Your task to perform on an android device: turn on improve location accuracy Image 0: 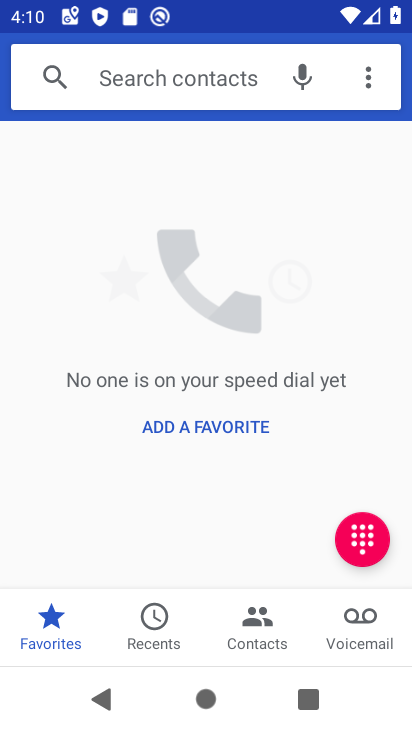
Step 0: press home button
Your task to perform on an android device: turn on improve location accuracy Image 1: 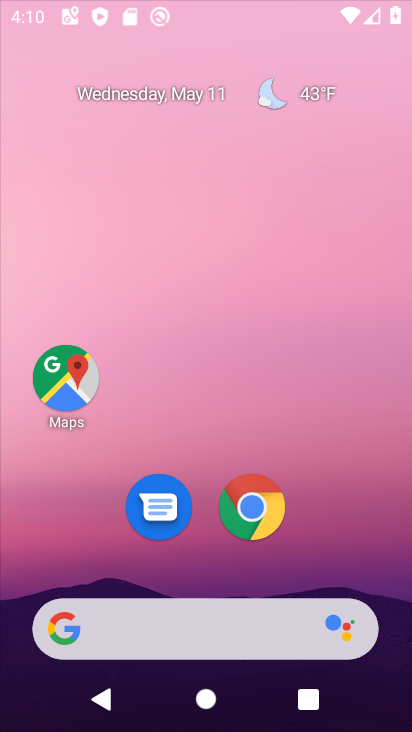
Step 1: drag from (221, 570) to (257, 40)
Your task to perform on an android device: turn on improve location accuracy Image 2: 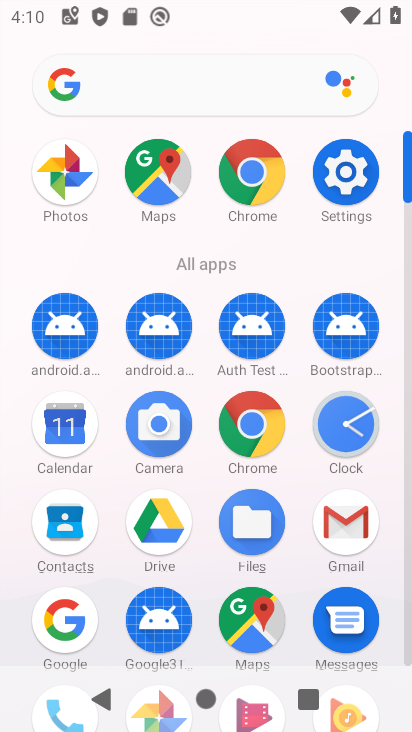
Step 2: click (354, 195)
Your task to perform on an android device: turn on improve location accuracy Image 3: 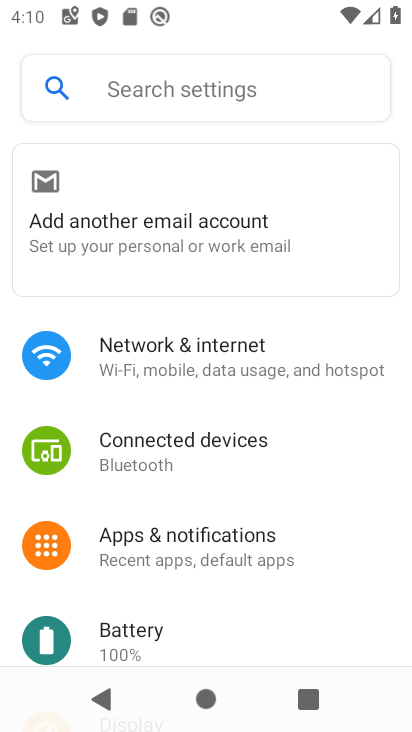
Step 3: drag from (190, 554) to (213, 66)
Your task to perform on an android device: turn on improve location accuracy Image 4: 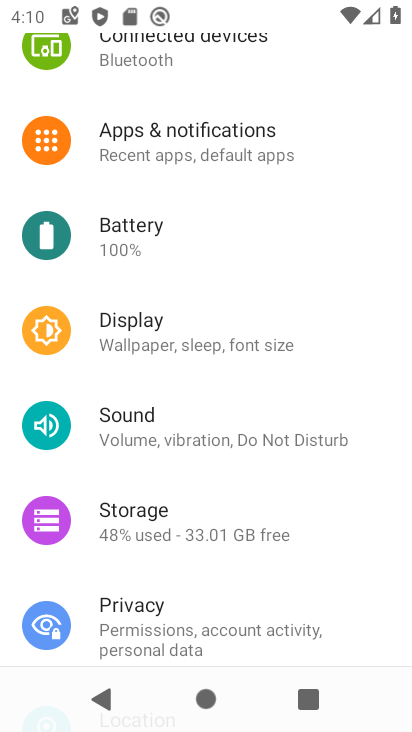
Step 4: drag from (170, 564) to (239, 75)
Your task to perform on an android device: turn on improve location accuracy Image 5: 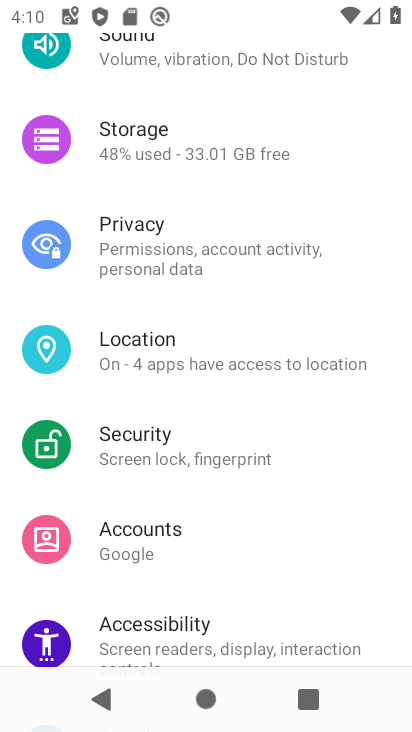
Step 5: drag from (209, 472) to (225, 372)
Your task to perform on an android device: turn on improve location accuracy Image 6: 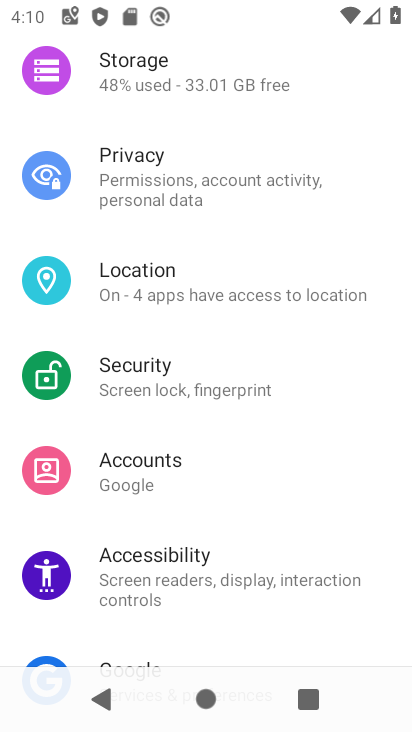
Step 6: click (249, 285)
Your task to perform on an android device: turn on improve location accuracy Image 7: 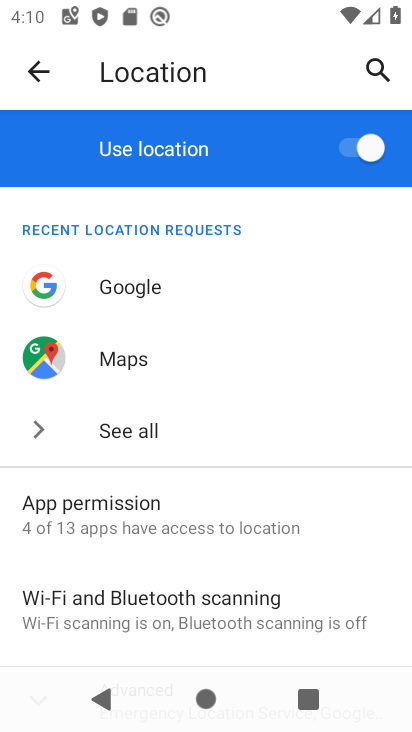
Step 7: drag from (302, 578) to (294, 153)
Your task to perform on an android device: turn on improve location accuracy Image 8: 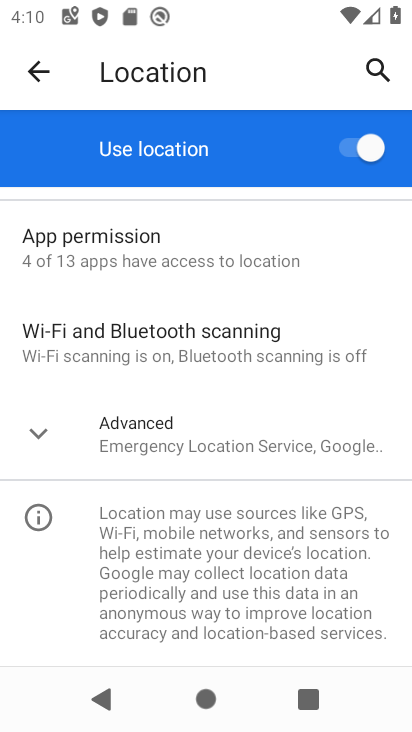
Step 8: click (161, 461)
Your task to perform on an android device: turn on improve location accuracy Image 9: 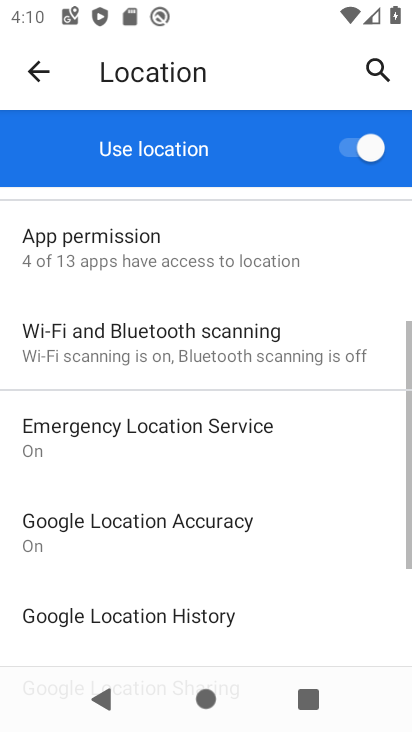
Step 9: task complete